Your task to perform on an android device: toggle airplane mode Image 0: 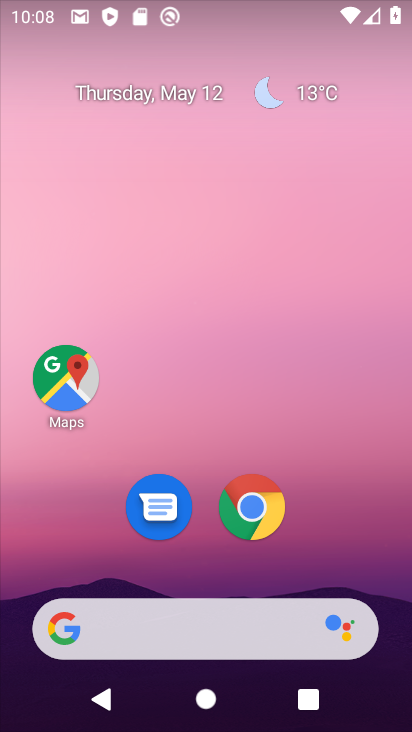
Step 0: drag from (303, 5) to (279, 450)
Your task to perform on an android device: toggle airplane mode Image 1: 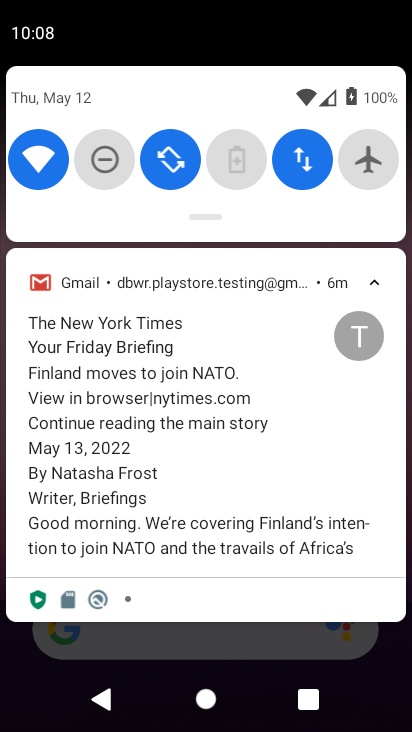
Step 1: drag from (314, 196) to (320, 583)
Your task to perform on an android device: toggle airplane mode Image 2: 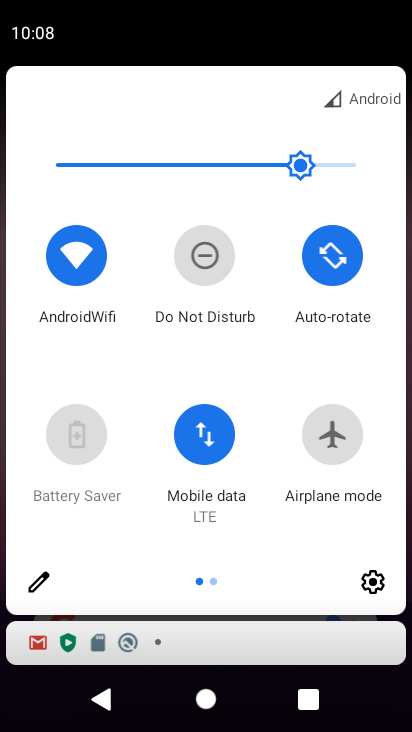
Step 2: click (324, 423)
Your task to perform on an android device: toggle airplane mode Image 3: 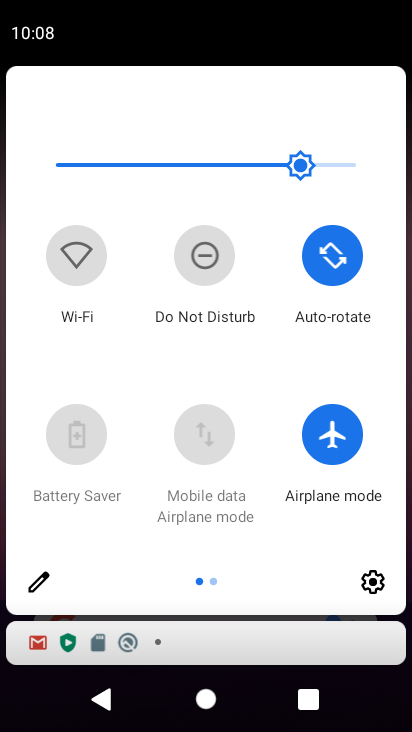
Step 3: task complete